Your task to perform on an android device: What is the news today? Image 0: 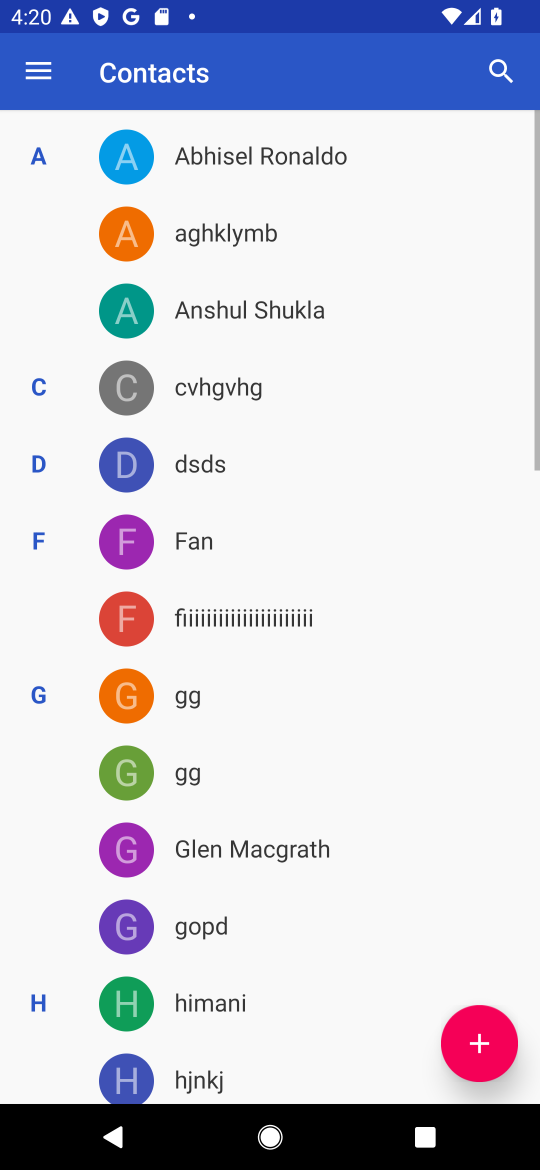
Step 0: press home button
Your task to perform on an android device: What is the news today? Image 1: 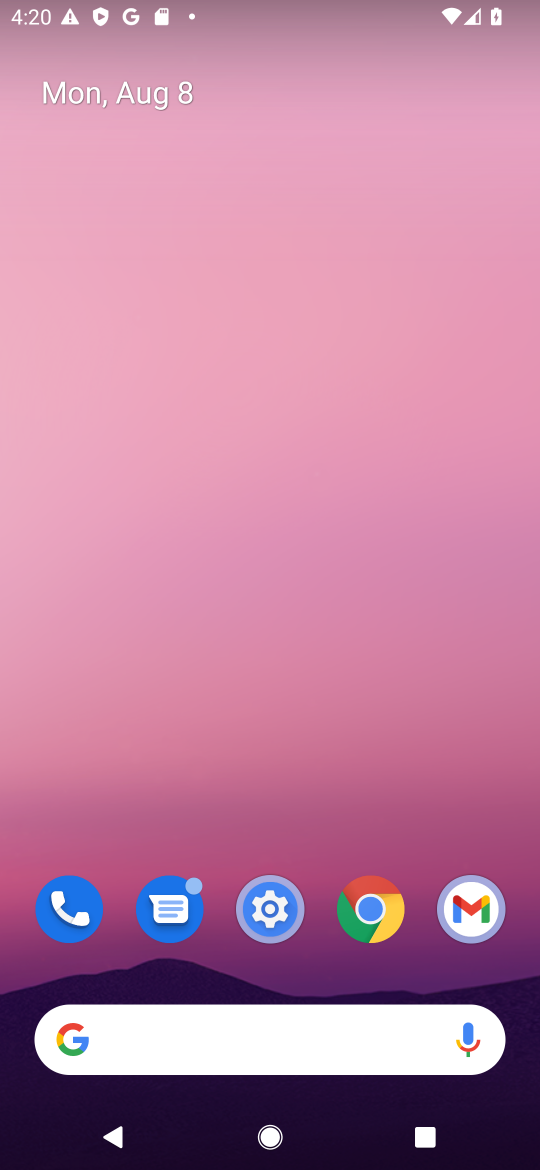
Step 1: click (170, 1035)
Your task to perform on an android device: What is the news today? Image 2: 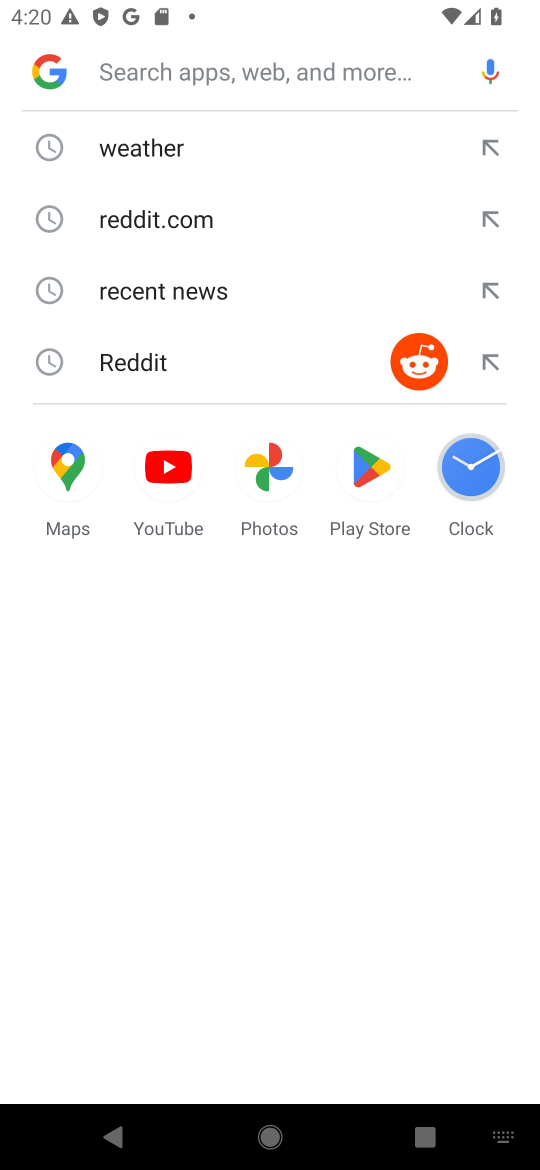
Step 2: click (149, 291)
Your task to perform on an android device: What is the news today? Image 3: 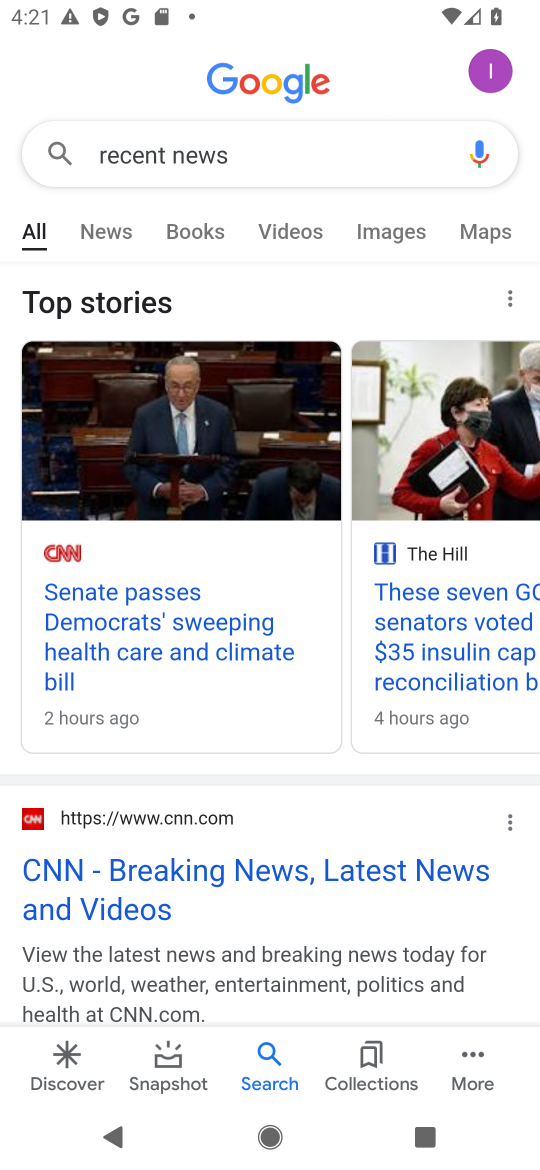
Step 3: click (91, 224)
Your task to perform on an android device: What is the news today? Image 4: 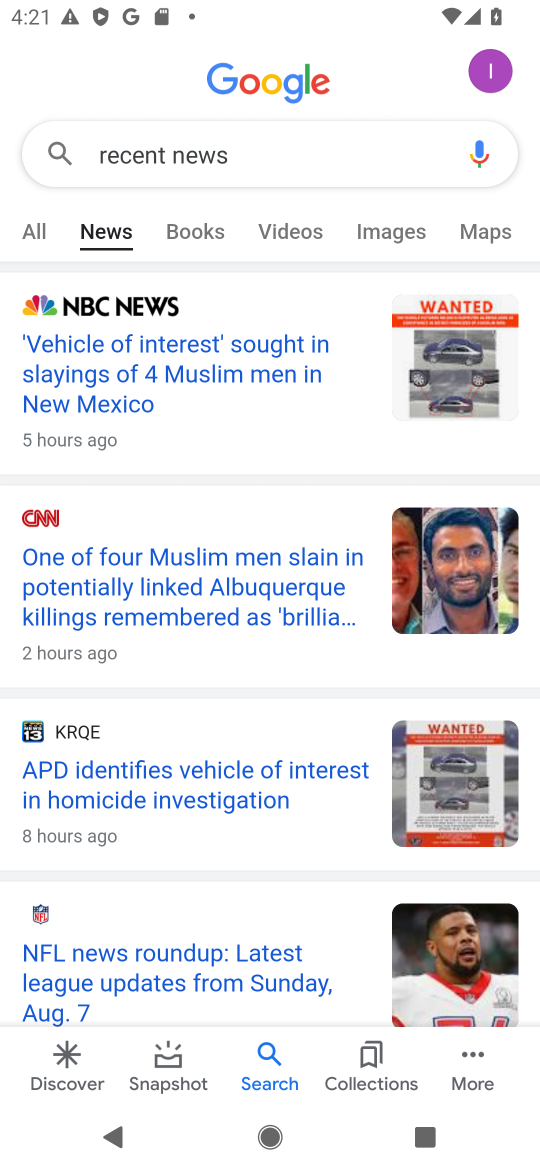
Step 4: task complete